Your task to perform on an android device: Show me productivity apps on the Play Store Image 0: 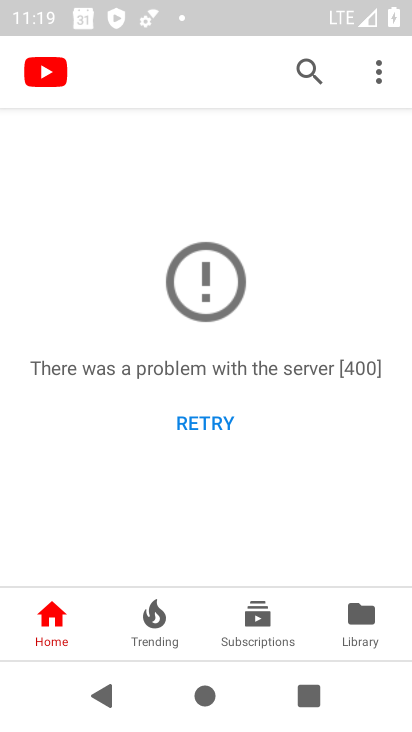
Step 0: drag from (333, 524) to (314, 229)
Your task to perform on an android device: Show me productivity apps on the Play Store Image 1: 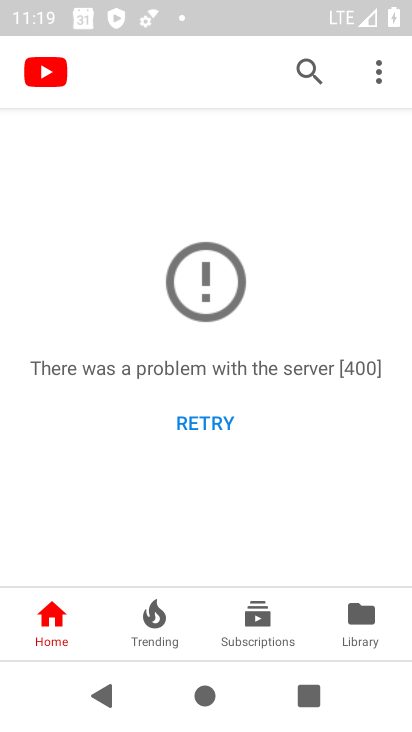
Step 1: press back button
Your task to perform on an android device: Show me productivity apps on the Play Store Image 2: 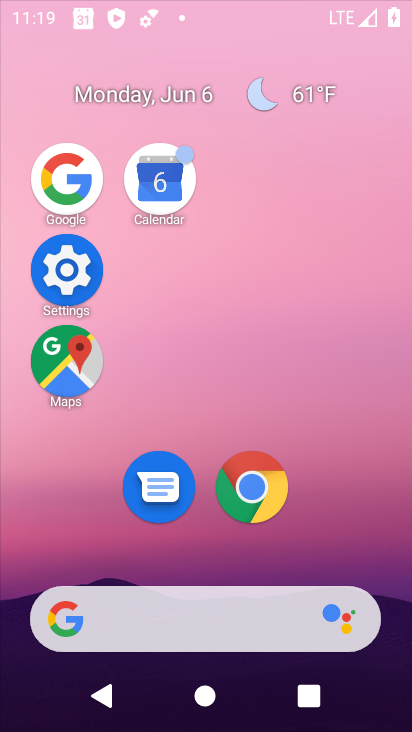
Step 2: press home button
Your task to perform on an android device: Show me productivity apps on the Play Store Image 3: 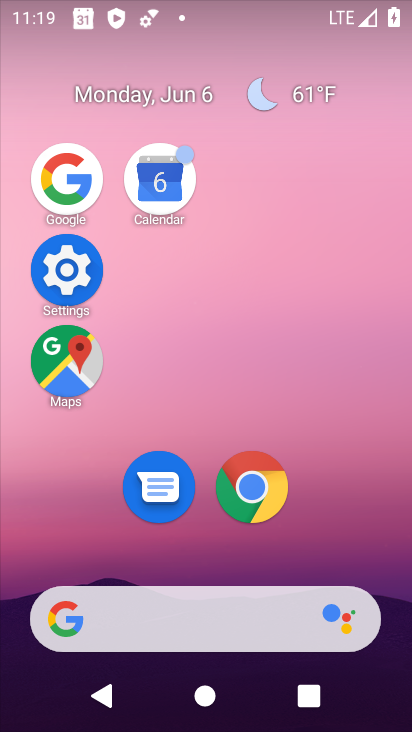
Step 3: drag from (349, 446) to (339, 185)
Your task to perform on an android device: Show me productivity apps on the Play Store Image 4: 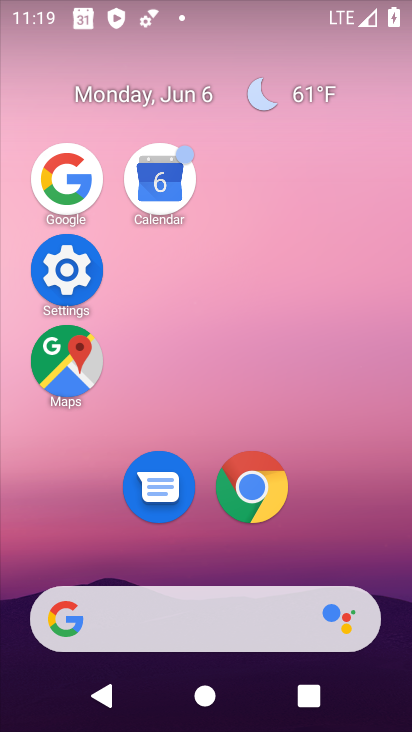
Step 4: drag from (313, 542) to (330, 129)
Your task to perform on an android device: Show me productivity apps on the Play Store Image 5: 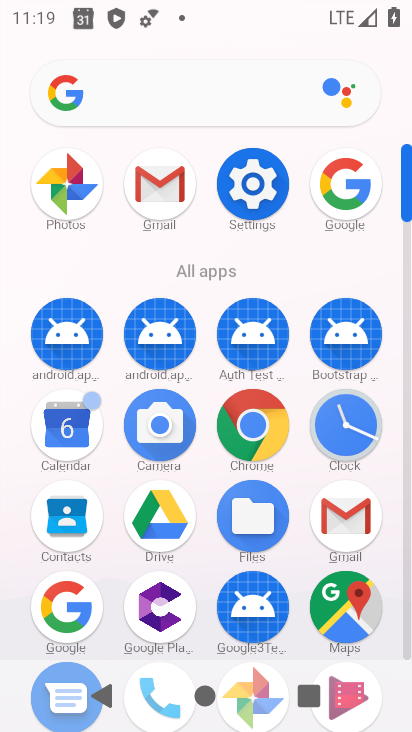
Step 5: drag from (148, 585) to (191, 254)
Your task to perform on an android device: Show me productivity apps on the Play Store Image 6: 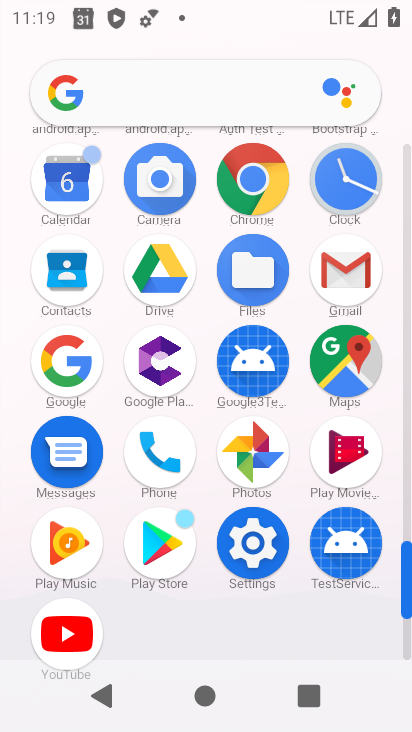
Step 6: click (150, 529)
Your task to perform on an android device: Show me productivity apps on the Play Store Image 7: 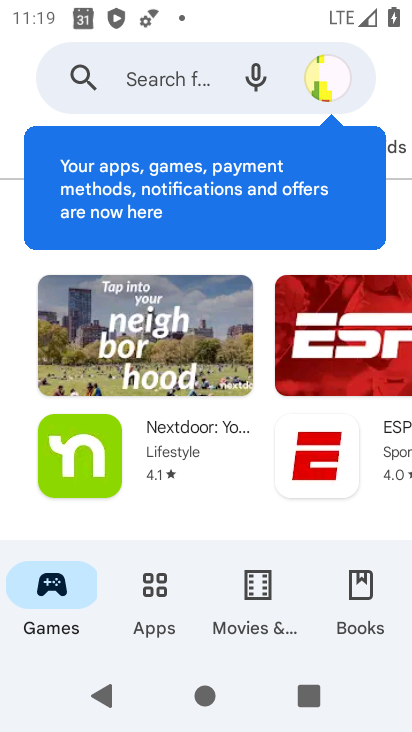
Step 7: click (184, 604)
Your task to perform on an android device: Show me productivity apps on the Play Store Image 8: 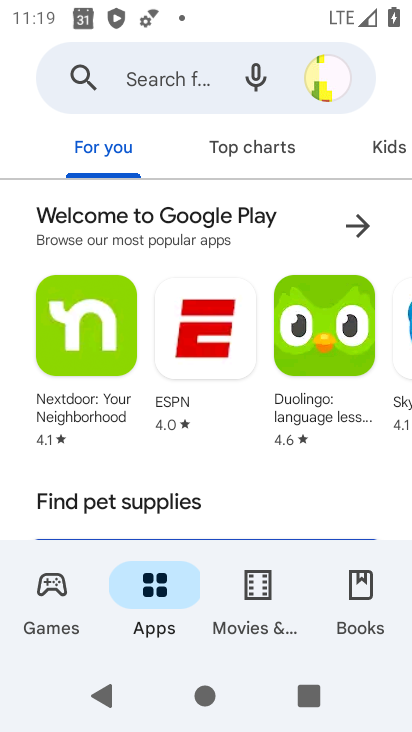
Step 8: drag from (380, 155) to (107, 149)
Your task to perform on an android device: Show me productivity apps on the Play Store Image 9: 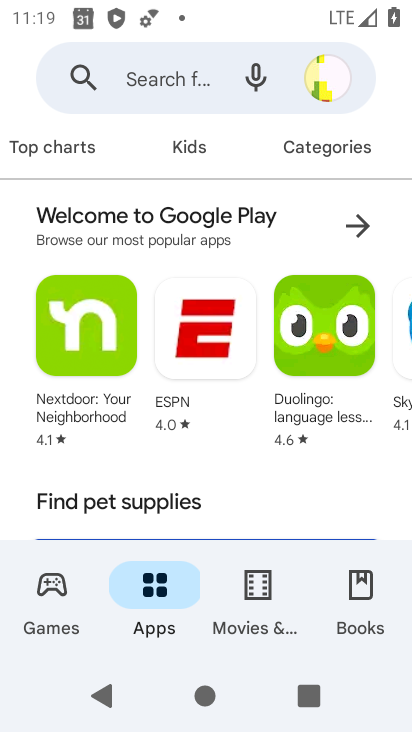
Step 9: click (272, 144)
Your task to perform on an android device: Show me productivity apps on the Play Store Image 10: 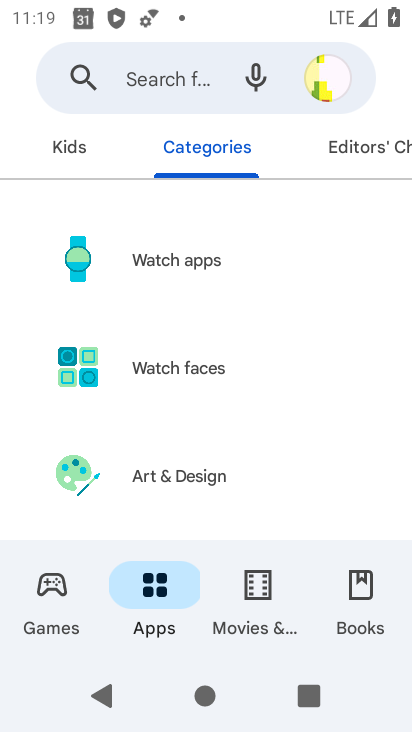
Step 10: drag from (267, 430) to (288, 112)
Your task to perform on an android device: Show me productivity apps on the Play Store Image 11: 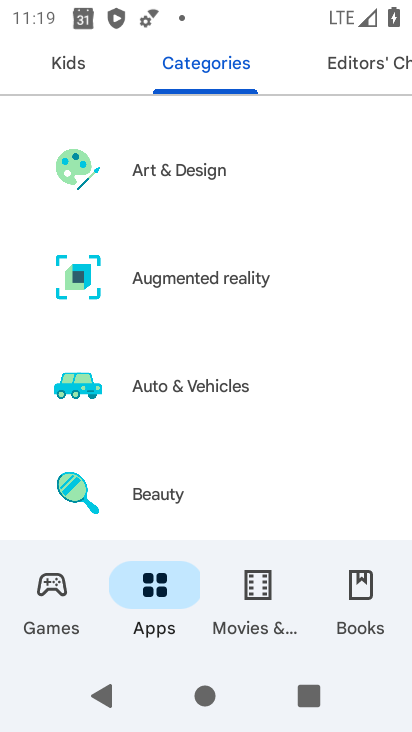
Step 11: drag from (234, 409) to (272, 55)
Your task to perform on an android device: Show me productivity apps on the Play Store Image 12: 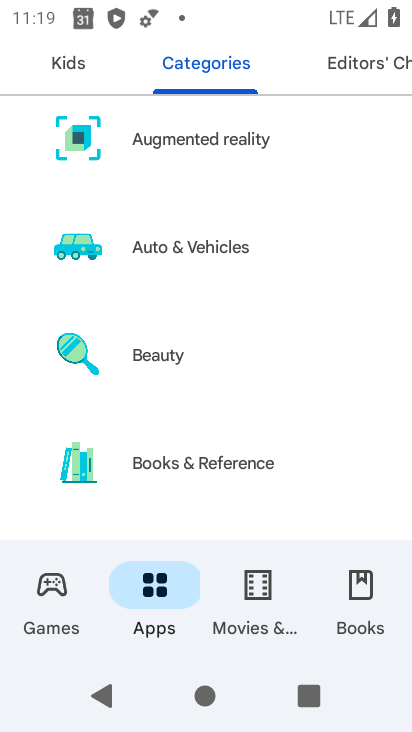
Step 12: drag from (237, 399) to (221, 67)
Your task to perform on an android device: Show me productivity apps on the Play Store Image 13: 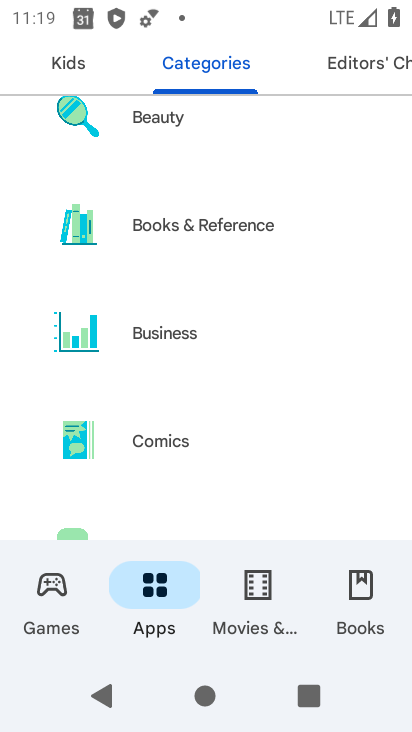
Step 13: drag from (252, 448) to (287, 117)
Your task to perform on an android device: Show me productivity apps on the Play Store Image 14: 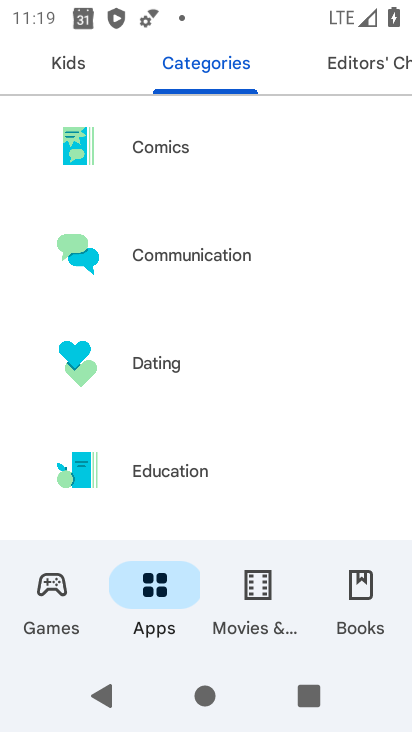
Step 14: drag from (219, 451) to (251, 168)
Your task to perform on an android device: Show me productivity apps on the Play Store Image 15: 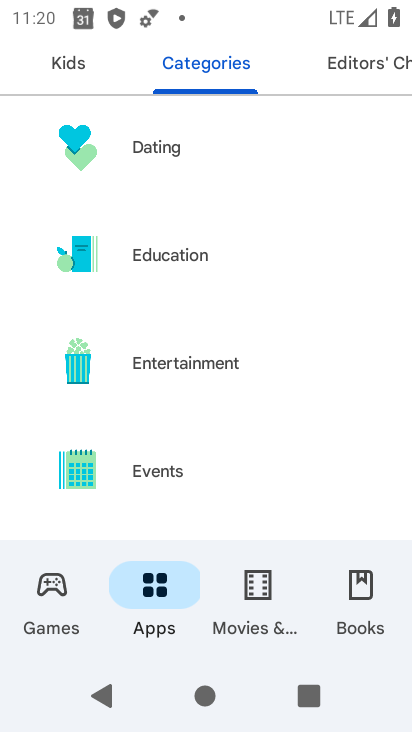
Step 15: drag from (249, 408) to (258, 150)
Your task to perform on an android device: Show me productivity apps on the Play Store Image 16: 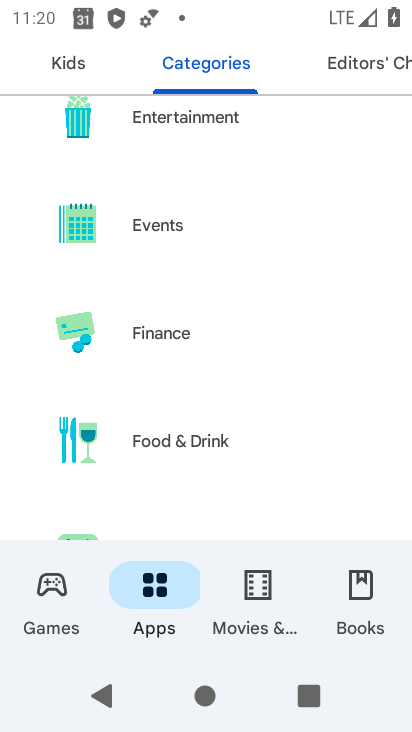
Step 16: drag from (269, 428) to (253, 172)
Your task to perform on an android device: Show me productivity apps on the Play Store Image 17: 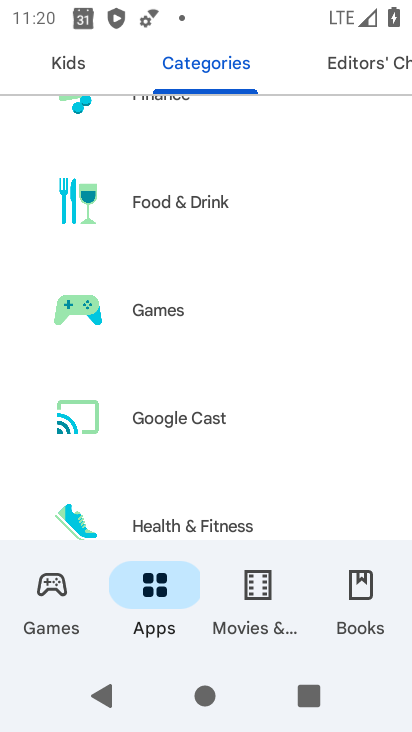
Step 17: drag from (248, 436) to (278, 170)
Your task to perform on an android device: Show me productivity apps on the Play Store Image 18: 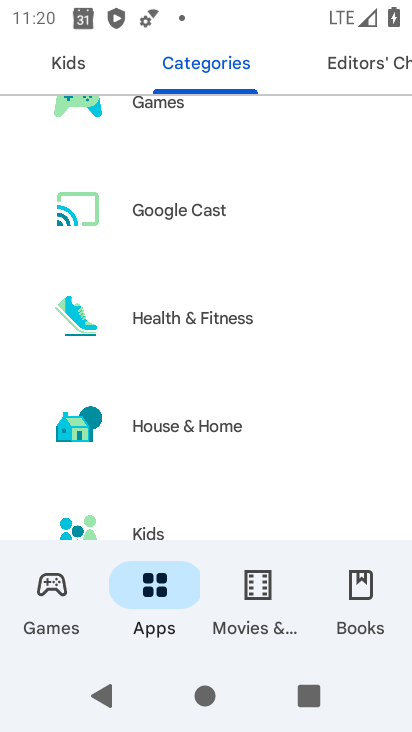
Step 18: drag from (254, 377) to (272, 152)
Your task to perform on an android device: Show me productivity apps on the Play Store Image 19: 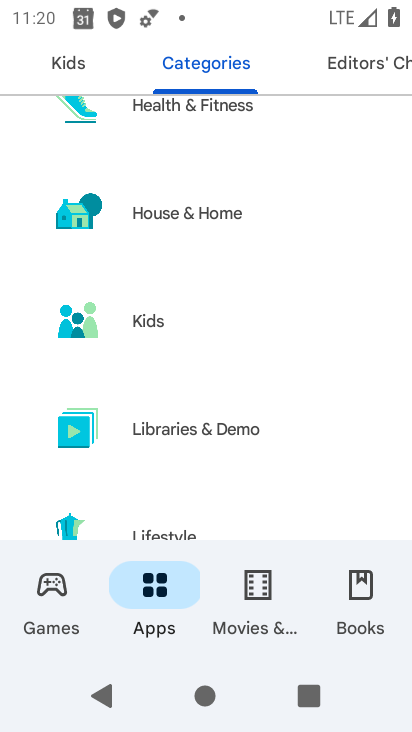
Step 19: drag from (276, 501) to (321, 172)
Your task to perform on an android device: Show me productivity apps on the Play Store Image 20: 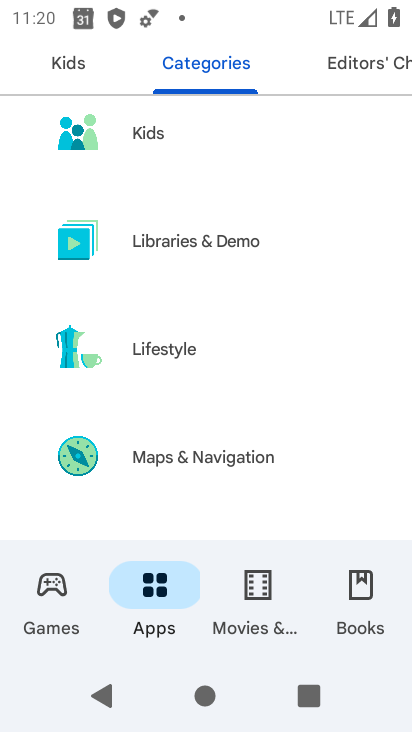
Step 20: drag from (264, 454) to (312, 130)
Your task to perform on an android device: Show me productivity apps on the Play Store Image 21: 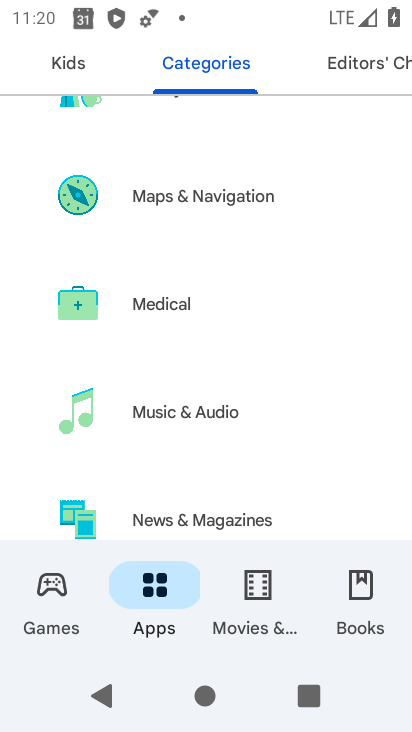
Step 21: drag from (277, 460) to (304, 125)
Your task to perform on an android device: Show me productivity apps on the Play Store Image 22: 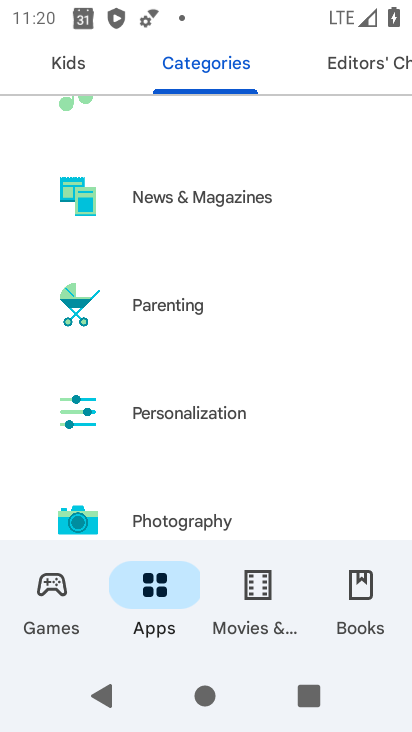
Step 22: drag from (257, 497) to (285, 179)
Your task to perform on an android device: Show me productivity apps on the Play Store Image 23: 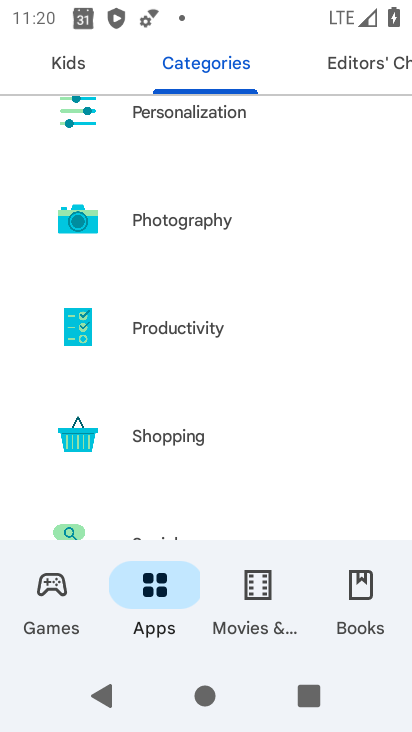
Step 23: click (247, 299)
Your task to perform on an android device: Show me productivity apps on the Play Store Image 24: 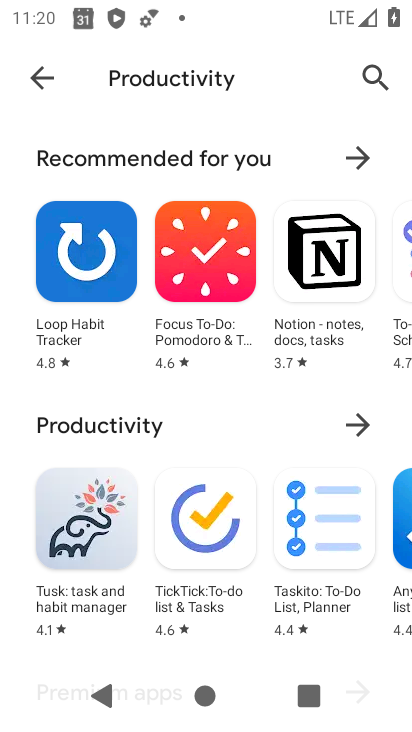
Step 24: task complete